Your task to perform on an android device: turn off priority inbox in the gmail app Image 0: 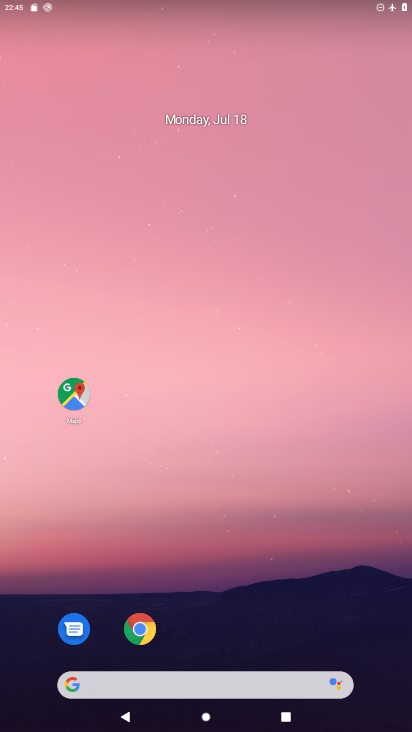
Step 0: drag from (338, 643) to (279, 131)
Your task to perform on an android device: turn off priority inbox in the gmail app Image 1: 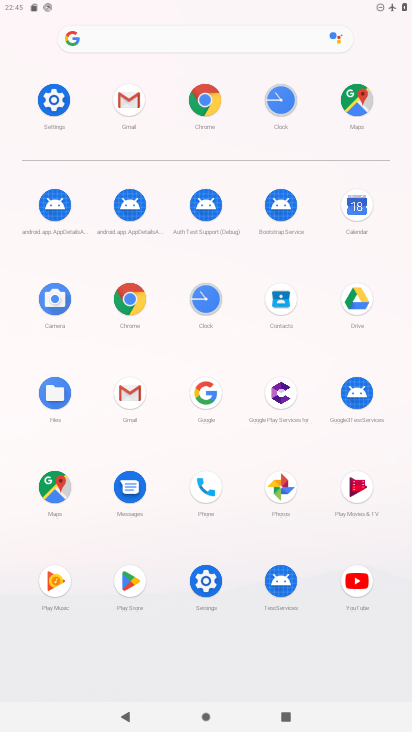
Step 1: click (125, 104)
Your task to perform on an android device: turn off priority inbox in the gmail app Image 2: 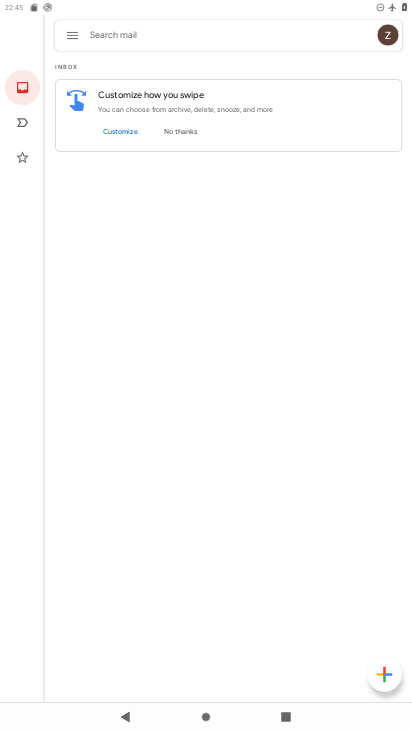
Step 2: click (67, 34)
Your task to perform on an android device: turn off priority inbox in the gmail app Image 3: 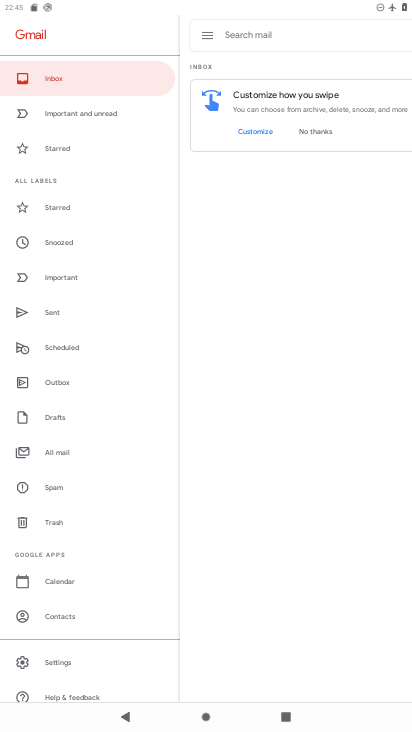
Step 3: click (45, 662)
Your task to perform on an android device: turn off priority inbox in the gmail app Image 4: 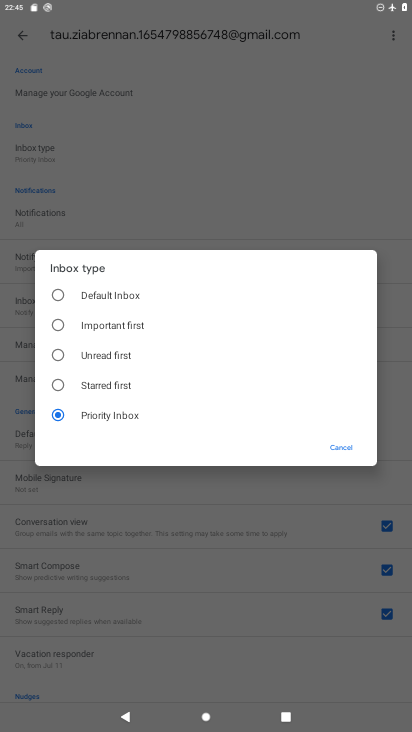
Step 4: task complete